Your task to perform on an android device: toggle pop-ups in chrome Image 0: 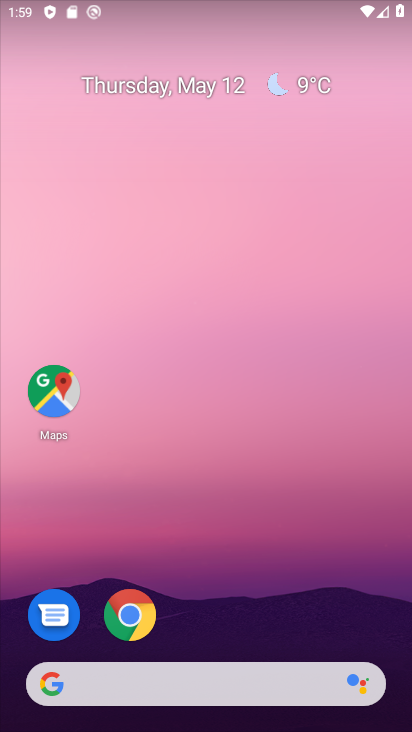
Step 0: click (129, 633)
Your task to perform on an android device: toggle pop-ups in chrome Image 1: 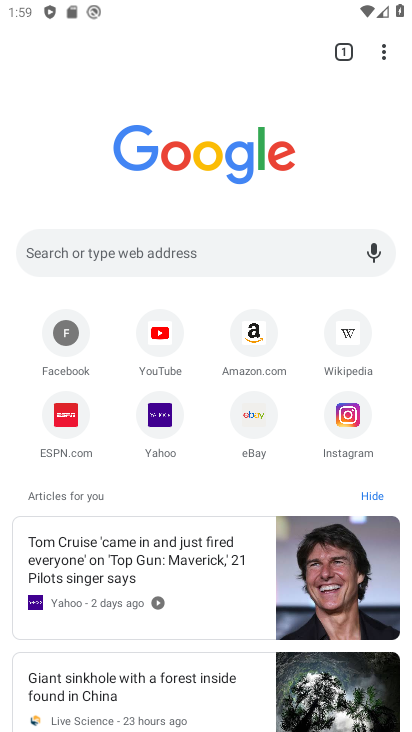
Step 1: drag from (384, 42) to (238, 434)
Your task to perform on an android device: toggle pop-ups in chrome Image 2: 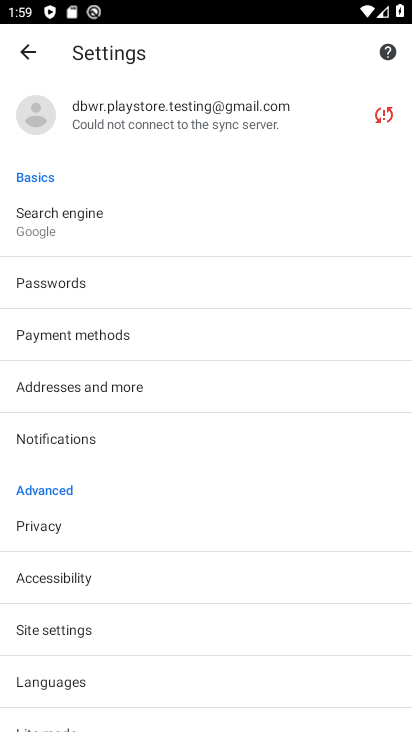
Step 2: click (81, 633)
Your task to perform on an android device: toggle pop-ups in chrome Image 3: 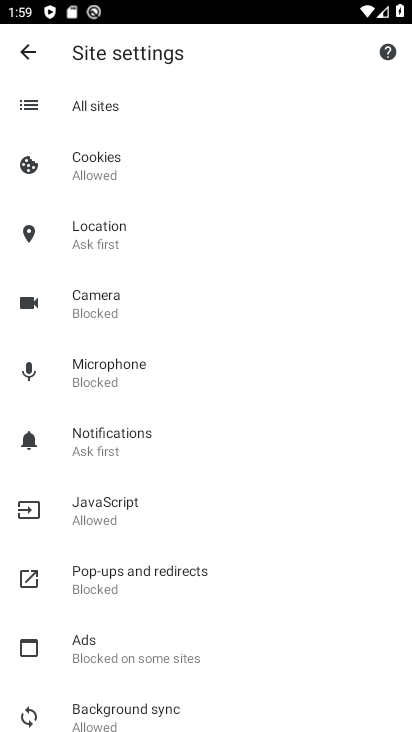
Step 3: click (150, 587)
Your task to perform on an android device: toggle pop-ups in chrome Image 4: 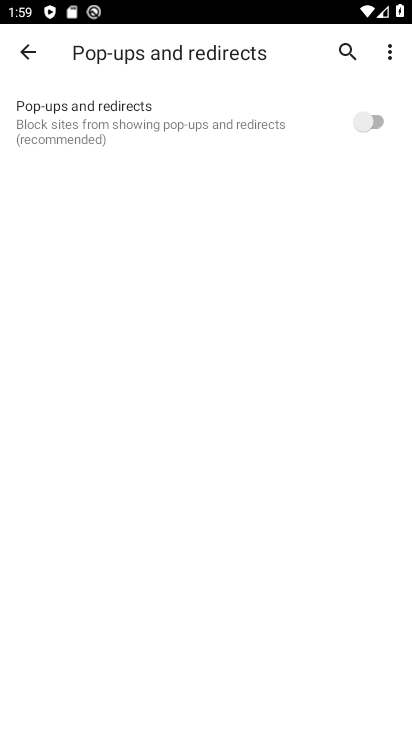
Step 4: click (368, 119)
Your task to perform on an android device: toggle pop-ups in chrome Image 5: 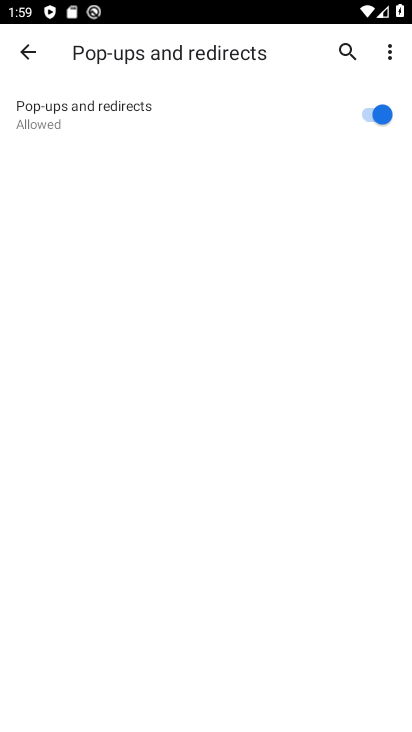
Step 5: task complete